Your task to perform on an android device: Open accessibility settings Image 0: 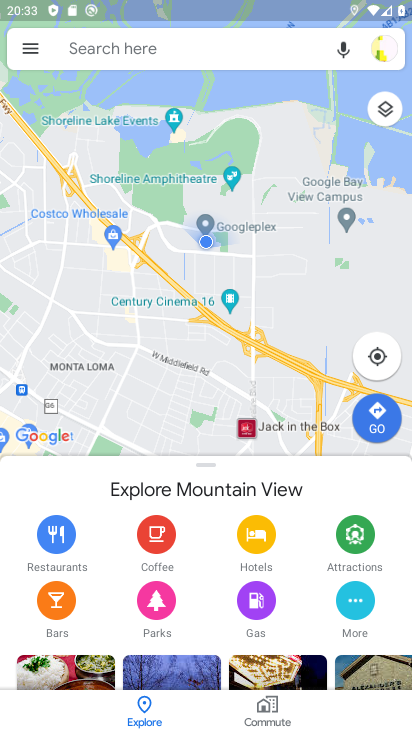
Step 0: press home button
Your task to perform on an android device: Open accessibility settings Image 1: 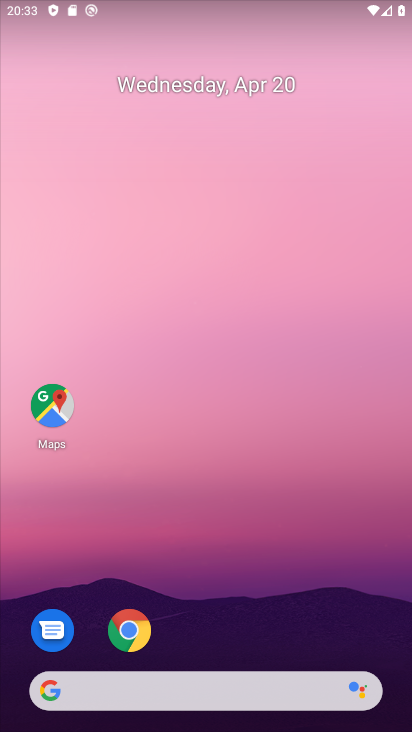
Step 1: drag from (246, 606) to (266, 59)
Your task to perform on an android device: Open accessibility settings Image 2: 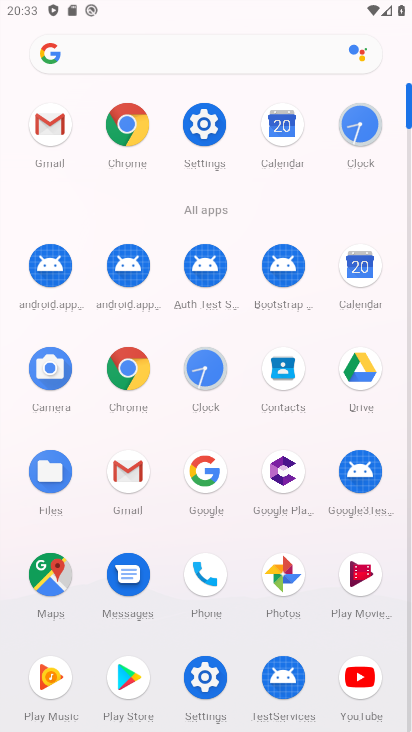
Step 2: click (205, 127)
Your task to perform on an android device: Open accessibility settings Image 3: 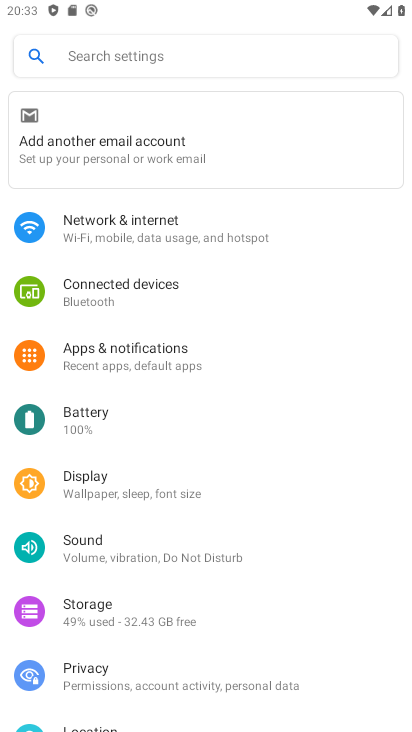
Step 3: drag from (330, 655) to (376, 155)
Your task to perform on an android device: Open accessibility settings Image 4: 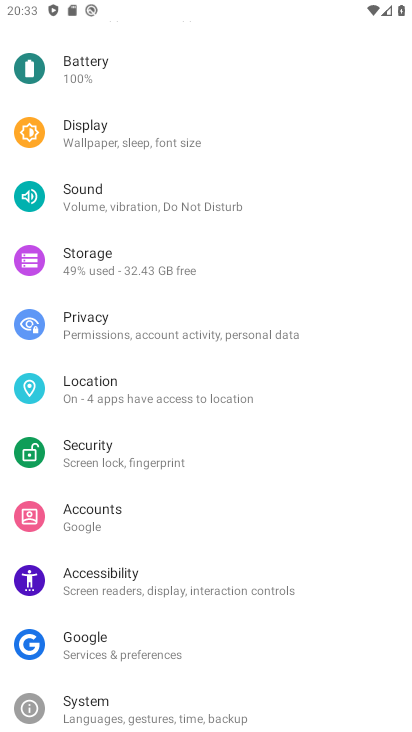
Step 4: drag from (306, 634) to (269, 387)
Your task to perform on an android device: Open accessibility settings Image 5: 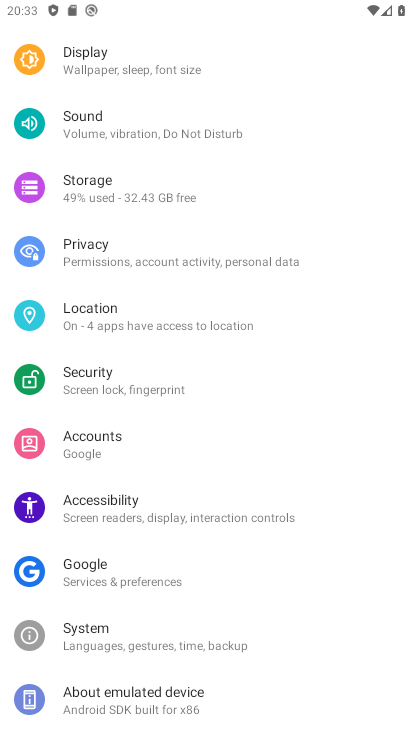
Step 5: click (202, 517)
Your task to perform on an android device: Open accessibility settings Image 6: 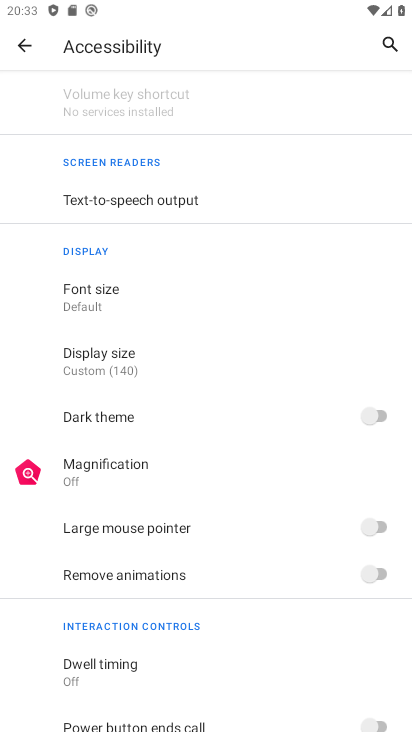
Step 6: task complete